Your task to perform on an android device: Do I have any events tomorrow? Image 0: 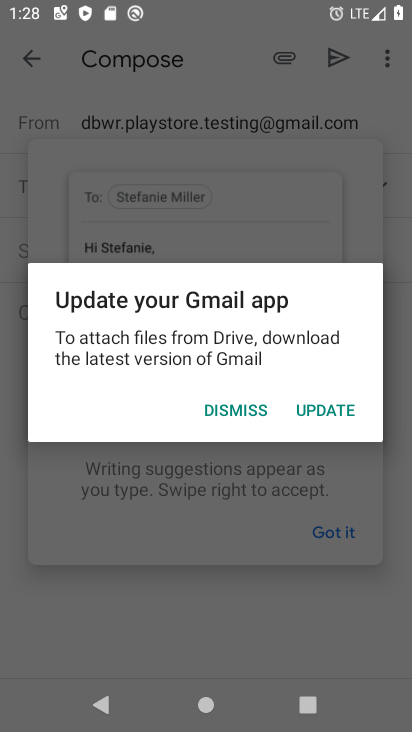
Step 0: press home button
Your task to perform on an android device: Do I have any events tomorrow? Image 1: 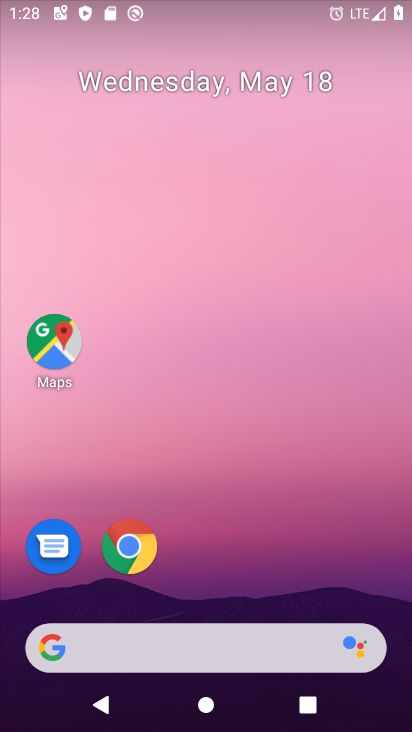
Step 1: drag from (232, 612) to (275, 140)
Your task to perform on an android device: Do I have any events tomorrow? Image 2: 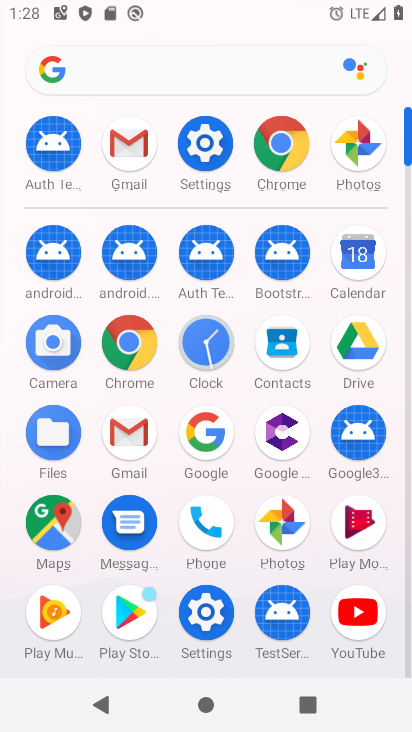
Step 2: click (356, 264)
Your task to perform on an android device: Do I have any events tomorrow? Image 3: 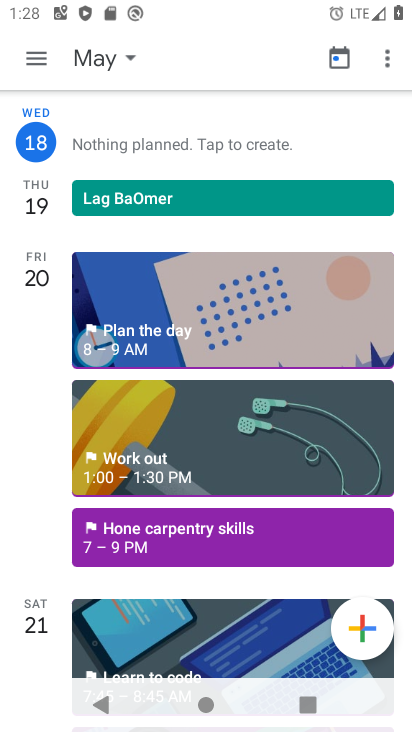
Step 3: task complete